Your task to perform on an android device: Open Google Chrome and click the shortcut for Amazon.com Image 0: 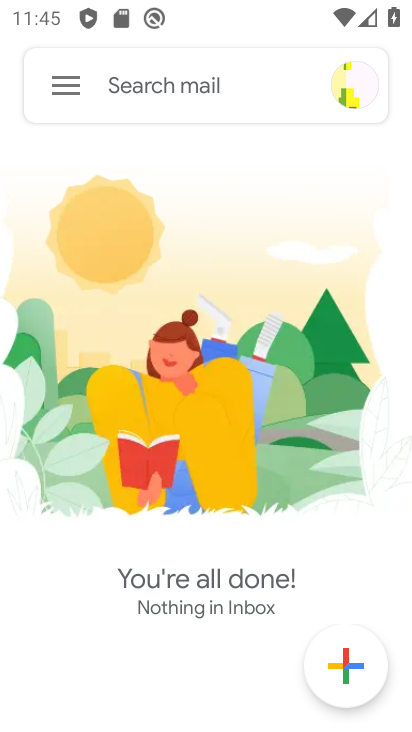
Step 0: press home button
Your task to perform on an android device: Open Google Chrome and click the shortcut for Amazon.com Image 1: 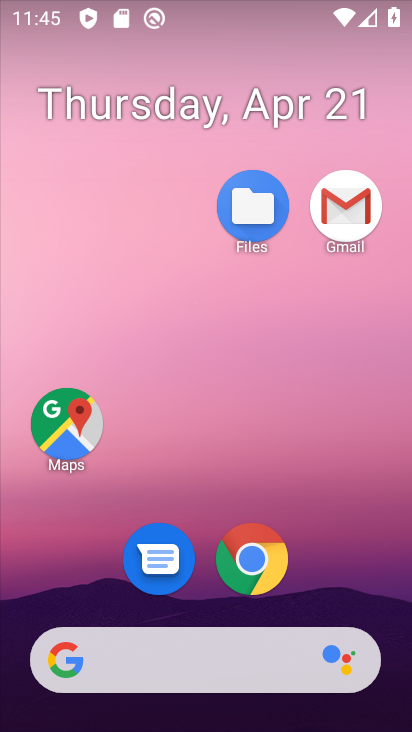
Step 1: click (240, 564)
Your task to perform on an android device: Open Google Chrome and click the shortcut for Amazon.com Image 2: 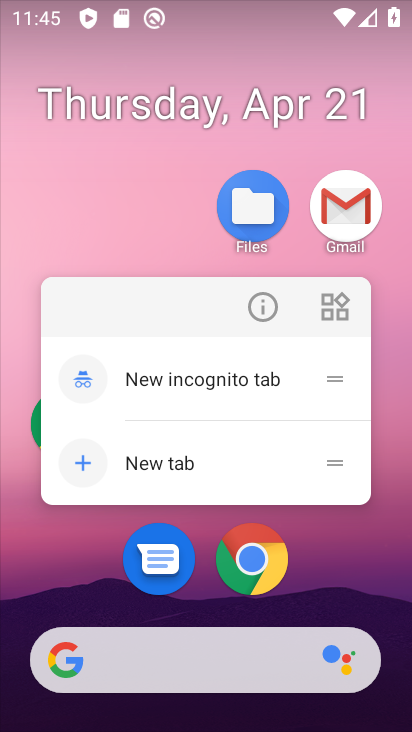
Step 2: click (240, 564)
Your task to perform on an android device: Open Google Chrome and click the shortcut for Amazon.com Image 3: 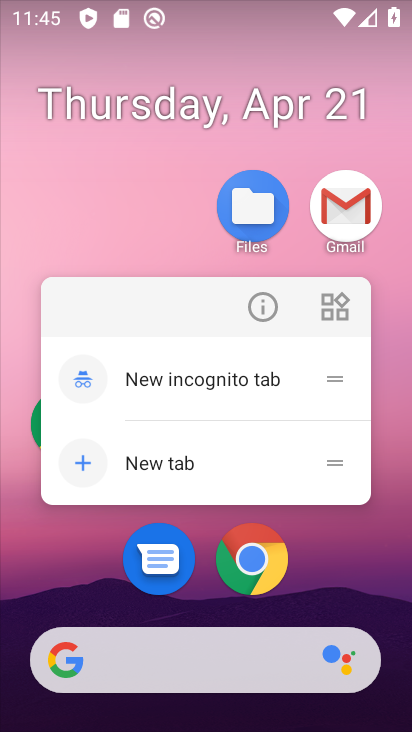
Step 3: click (240, 564)
Your task to perform on an android device: Open Google Chrome and click the shortcut for Amazon.com Image 4: 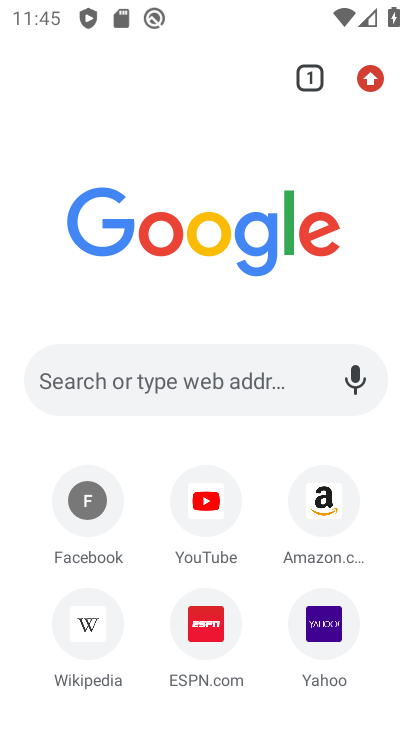
Step 4: click (331, 504)
Your task to perform on an android device: Open Google Chrome and click the shortcut for Amazon.com Image 5: 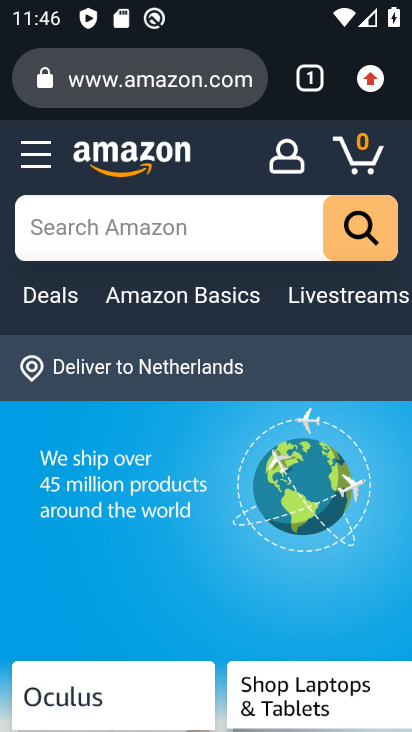
Step 5: task complete